Your task to perform on an android device: Find the nearest grocery store Image 0: 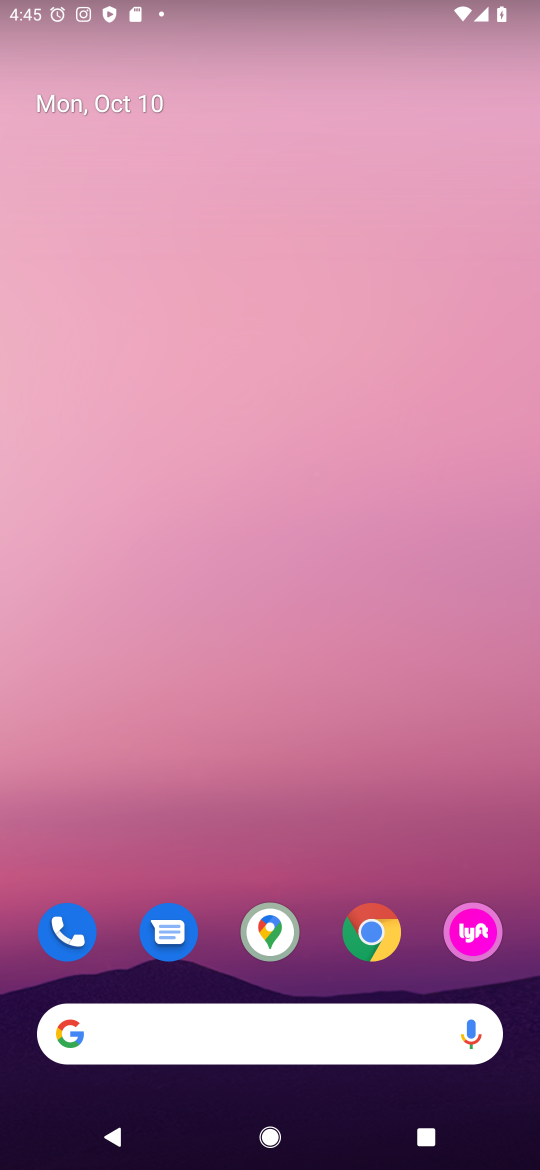
Step 0: click (235, 1027)
Your task to perform on an android device: Find the nearest grocery store Image 1: 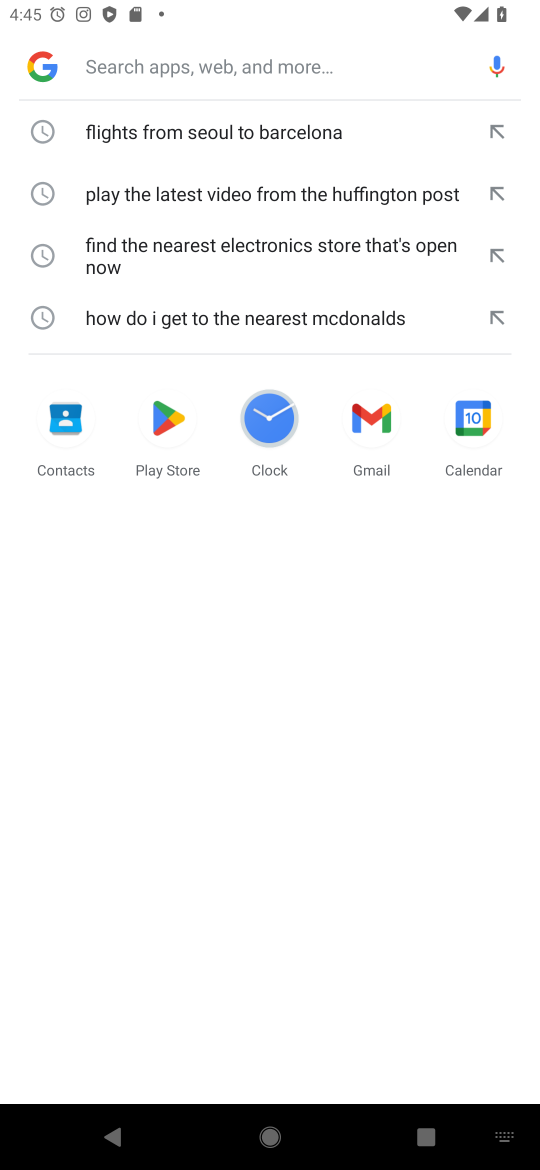
Step 1: type "Find the nearest grocery store"
Your task to perform on an android device: Find the nearest grocery store Image 2: 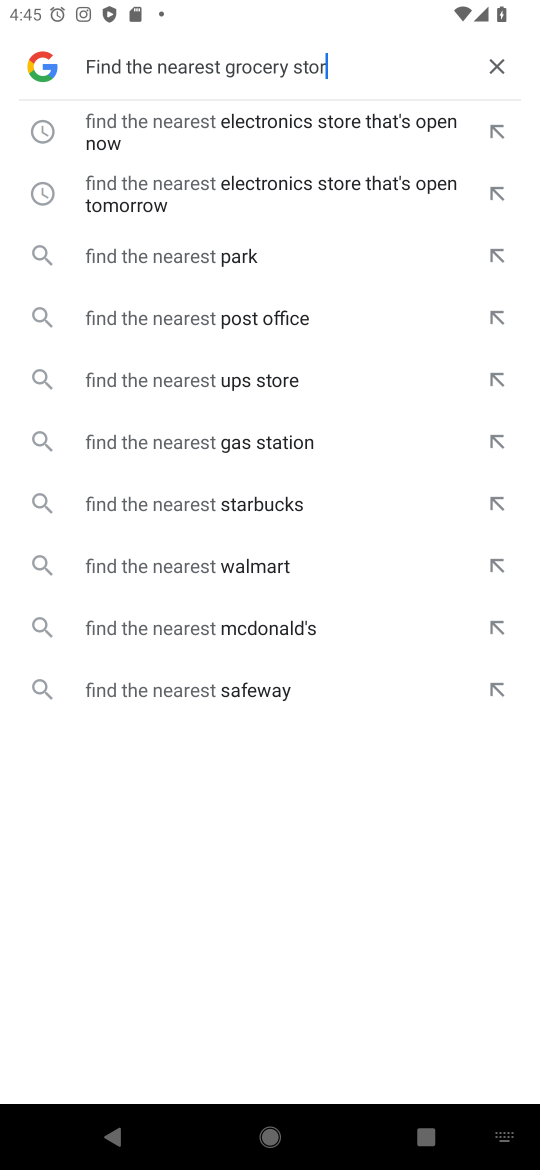
Step 2: press enter
Your task to perform on an android device: Find the nearest grocery store Image 3: 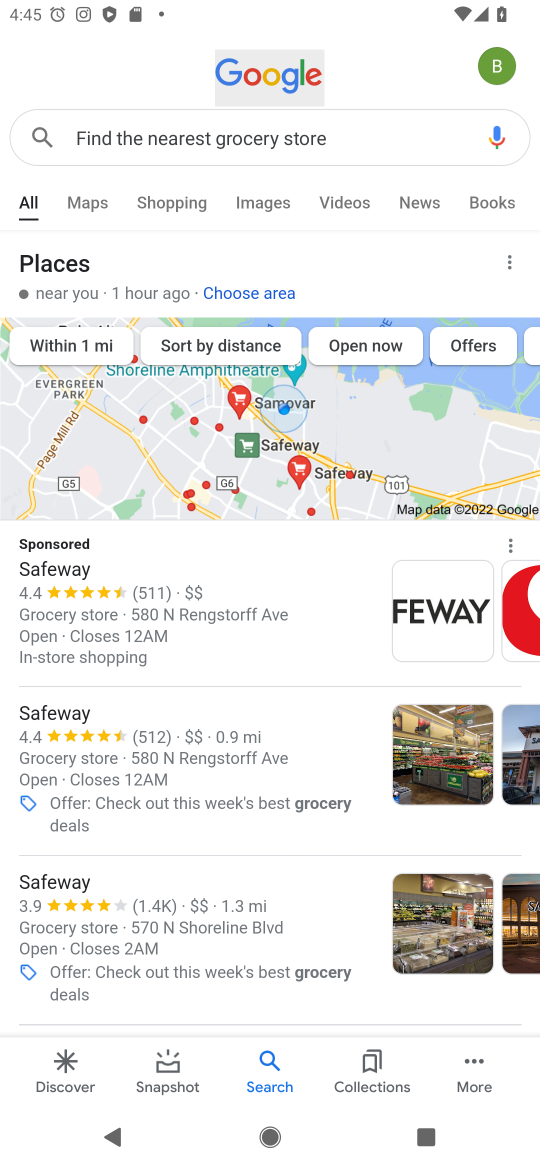
Step 3: task complete